Your task to perform on an android device: Go to Android settings Image 0: 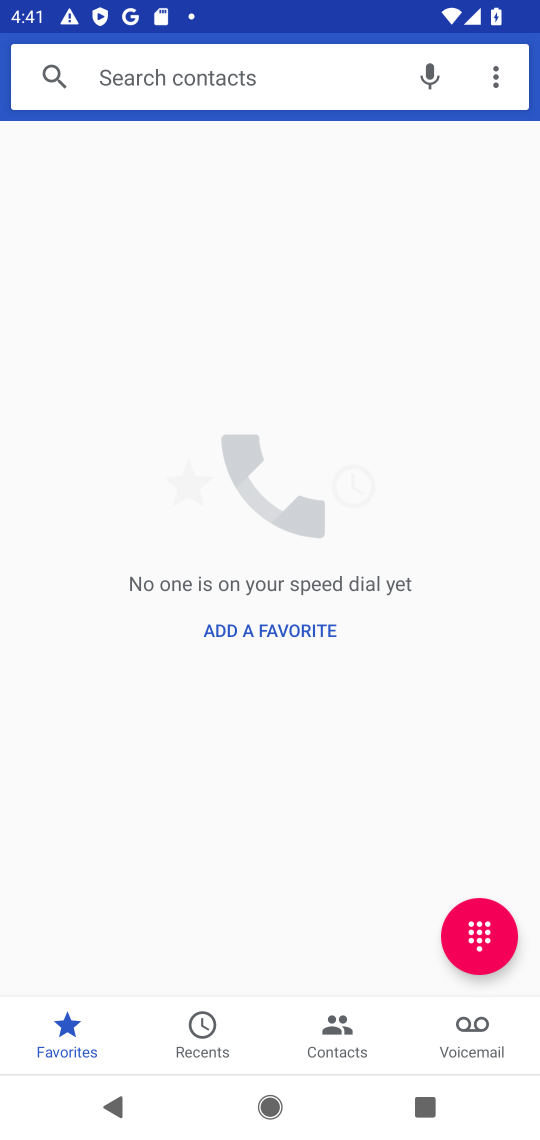
Step 0: press home button
Your task to perform on an android device: Go to Android settings Image 1: 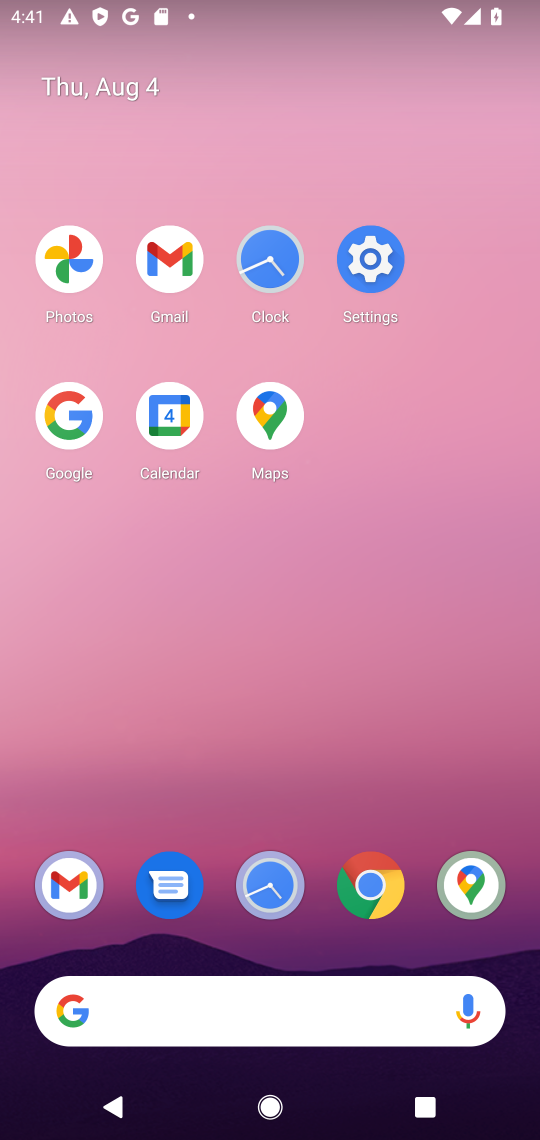
Step 1: click (366, 260)
Your task to perform on an android device: Go to Android settings Image 2: 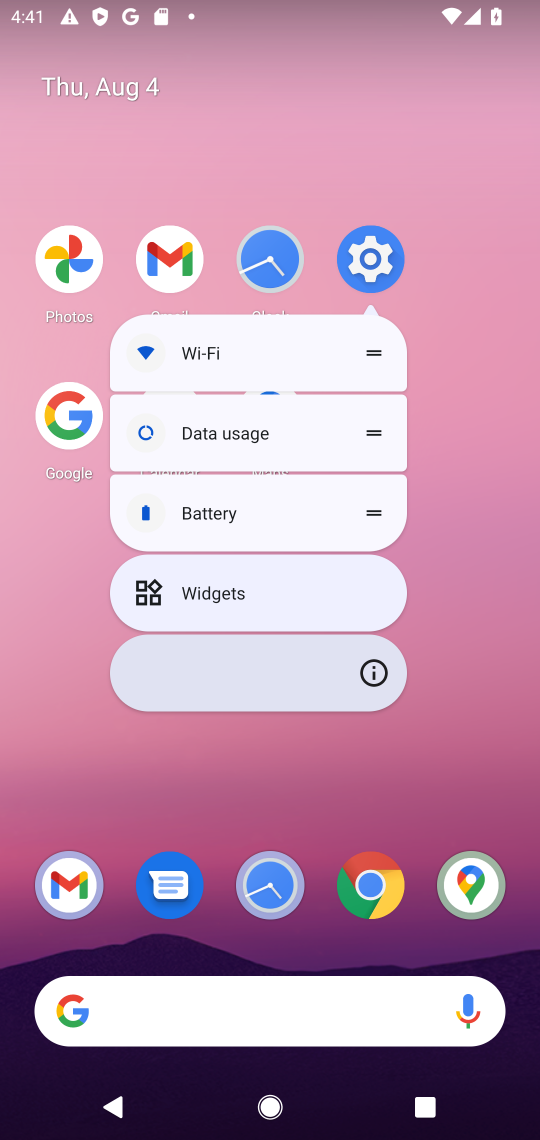
Step 2: click (366, 260)
Your task to perform on an android device: Go to Android settings Image 3: 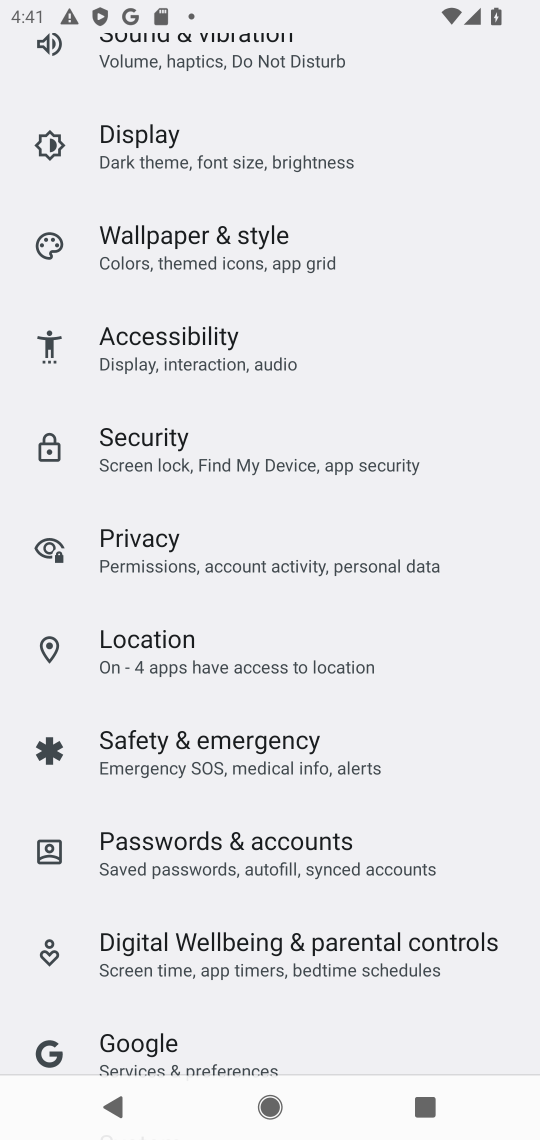
Step 3: task complete